Your task to perform on an android device: Go to eBay Image 0: 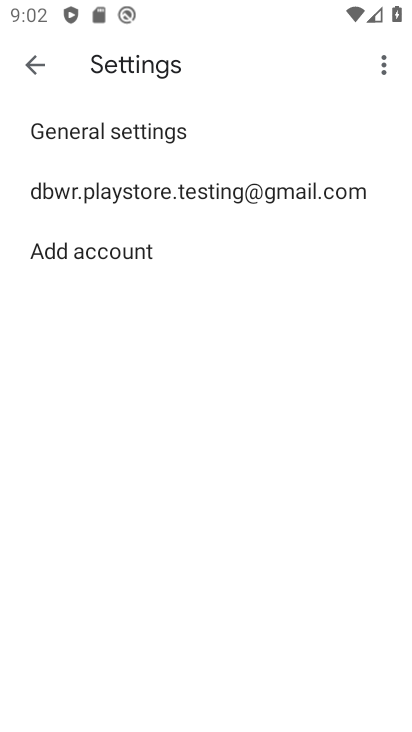
Step 0: click (17, 65)
Your task to perform on an android device: Go to eBay Image 1: 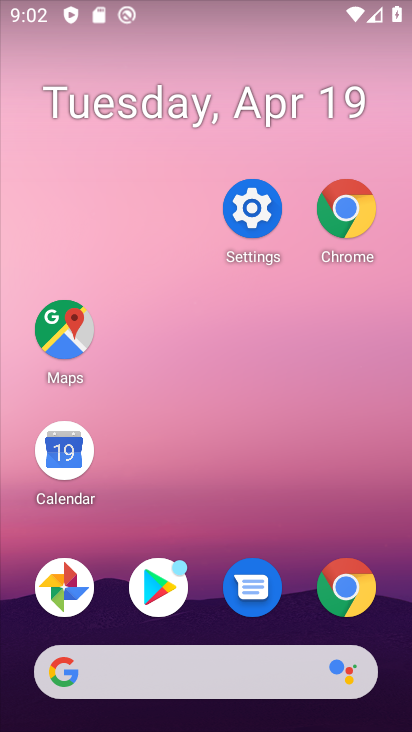
Step 1: drag from (315, 643) to (164, 120)
Your task to perform on an android device: Go to eBay Image 2: 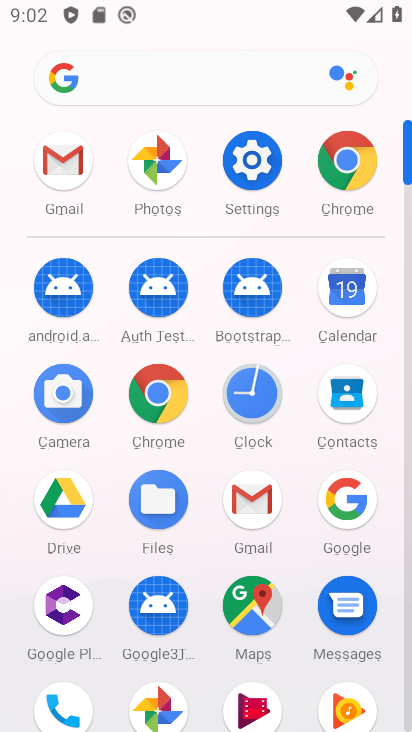
Step 2: click (348, 152)
Your task to perform on an android device: Go to eBay Image 3: 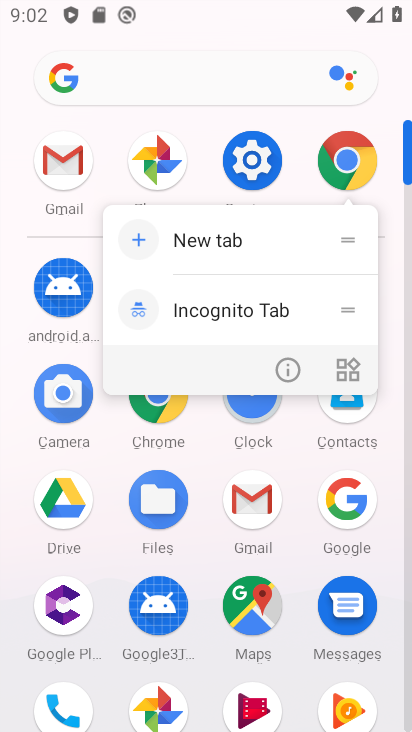
Step 3: click (348, 152)
Your task to perform on an android device: Go to eBay Image 4: 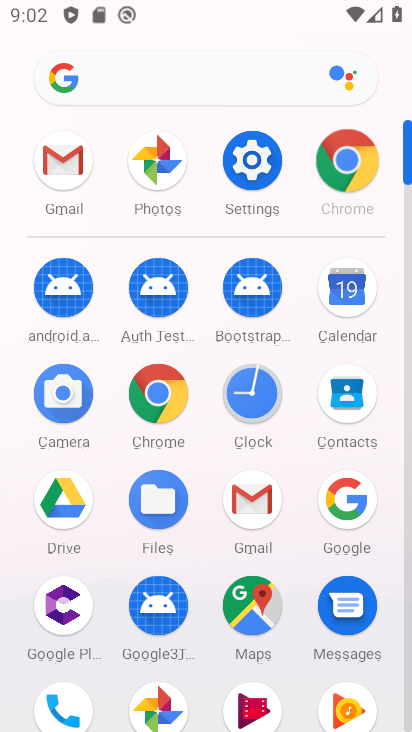
Step 4: click (348, 153)
Your task to perform on an android device: Go to eBay Image 5: 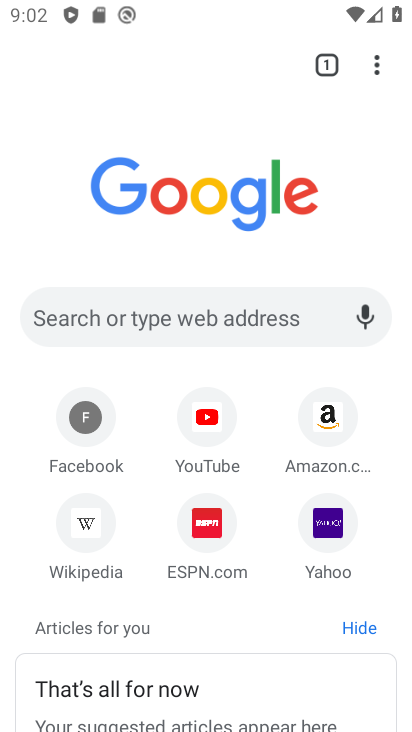
Step 5: click (73, 321)
Your task to perform on an android device: Go to eBay Image 6: 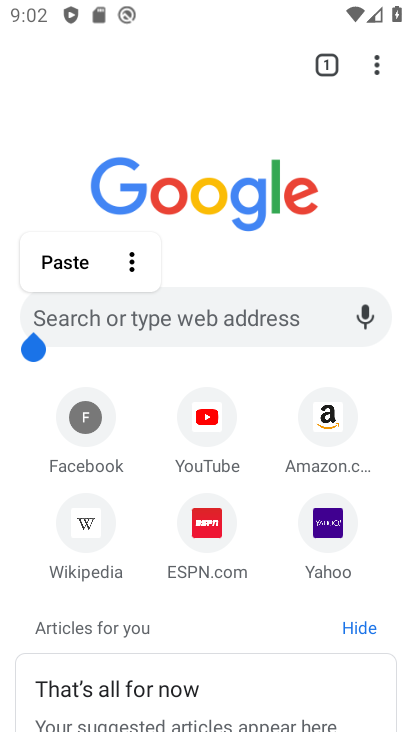
Step 6: click (78, 314)
Your task to perform on an android device: Go to eBay Image 7: 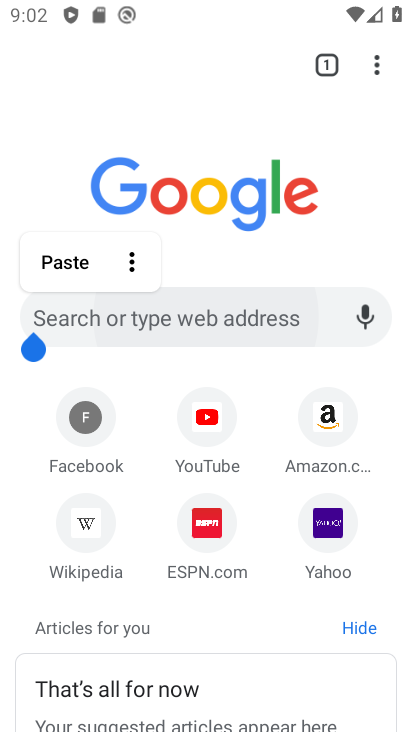
Step 7: click (78, 314)
Your task to perform on an android device: Go to eBay Image 8: 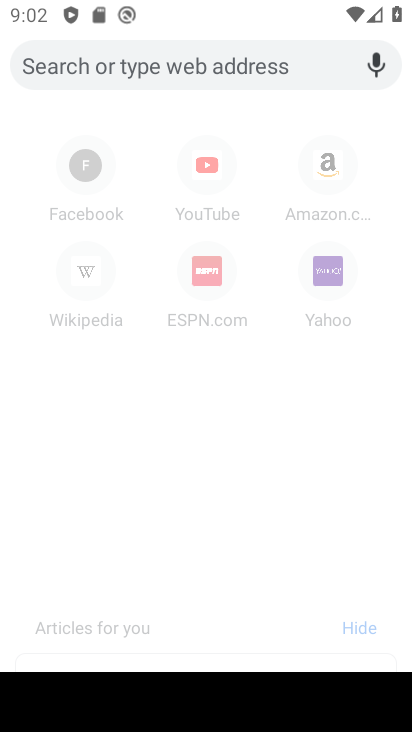
Step 8: click (79, 311)
Your task to perform on an android device: Go to eBay Image 9: 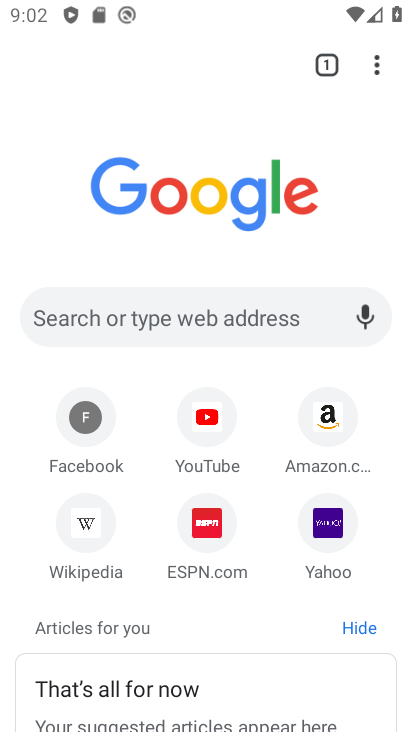
Step 9: click (150, 318)
Your task to perform on an android device: Go to eBay Image 10: 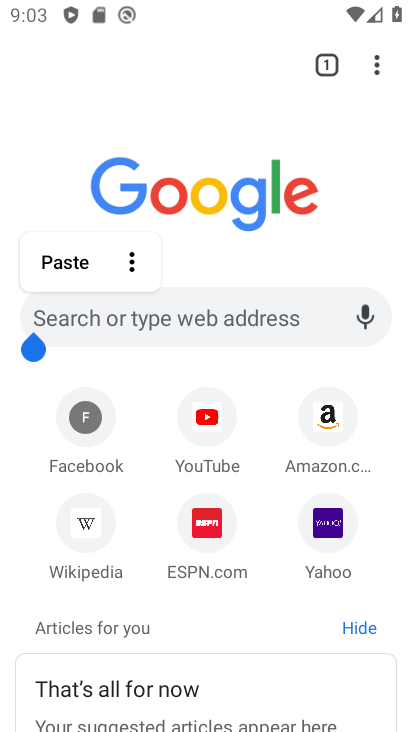
Step 10: click (51, 311)
Your task to perform on an android device: Go to eBay Image 11: 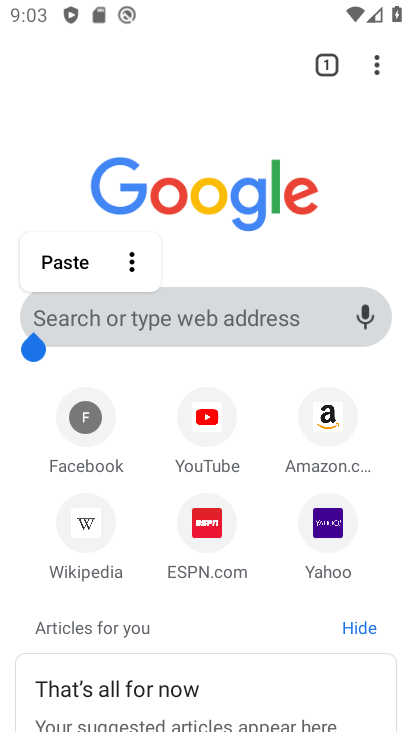
Step 11: click (64, 304)
Your task to perform on an android device: Go to eBay Image 12: 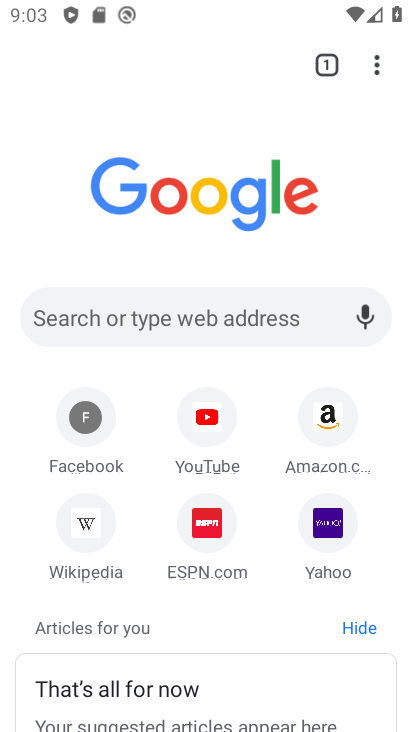
Step 12: click (154, 311)
Your task to perform on an android device: Go to eBay Image 13: 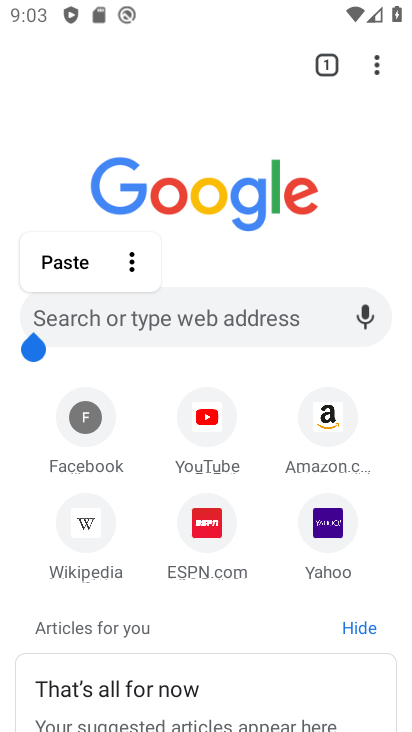
Step 13: click (149, 306)
Your task to perform on an android device: Go to eBay Image 14: 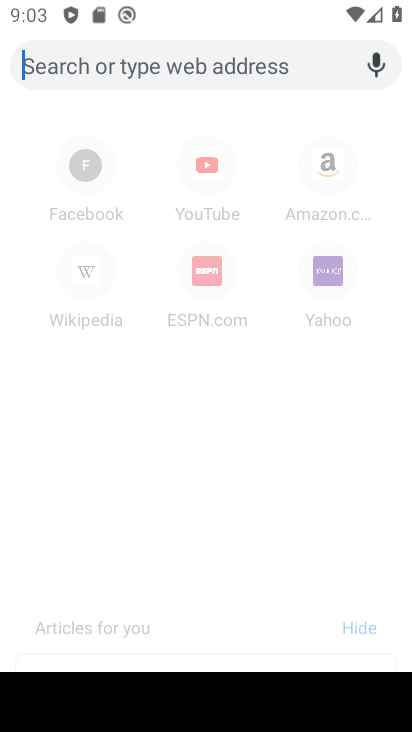
Step 14: type "www. go to eBay.com"
Your task to perform on an android device: Go to eBay Image 15: 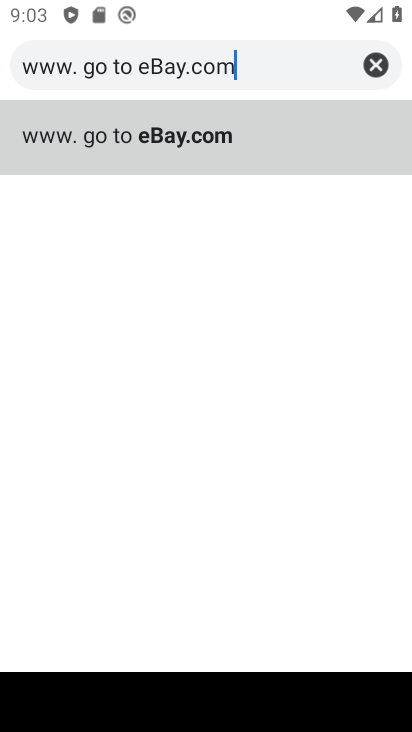
Step 15: click (169, 154)
Your task to perform on an android device: Go to eBay Image 16: 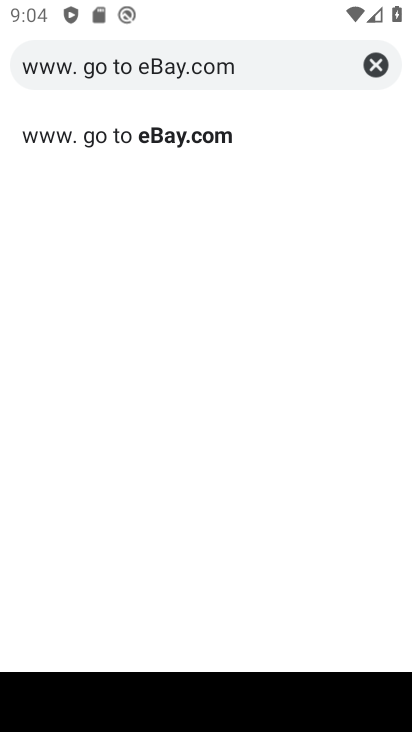
Step 16: click (199, 139)
Your task to perform on an android device: Go to eBay Image 17: 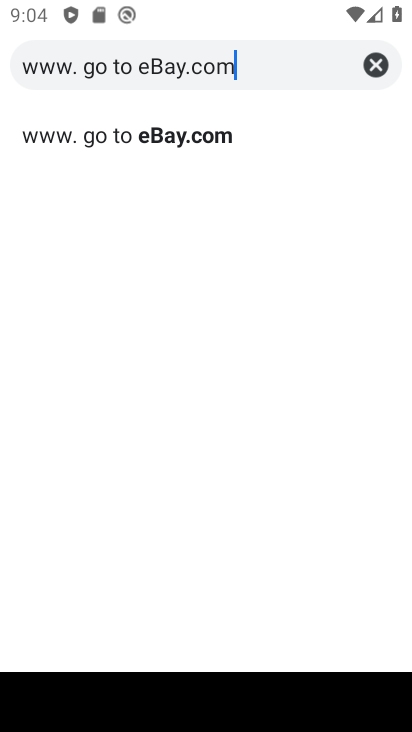
Step 17: click (199, 139)
Your task to perform on an android device: Go to eBay Image 18: 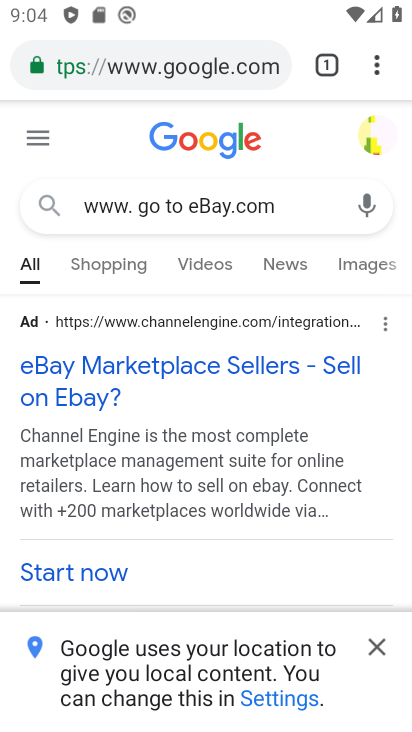
Step 18: drag from (229, 524) to (167, 166)
Your task to perform on an android device: Go to eBay Image 19: 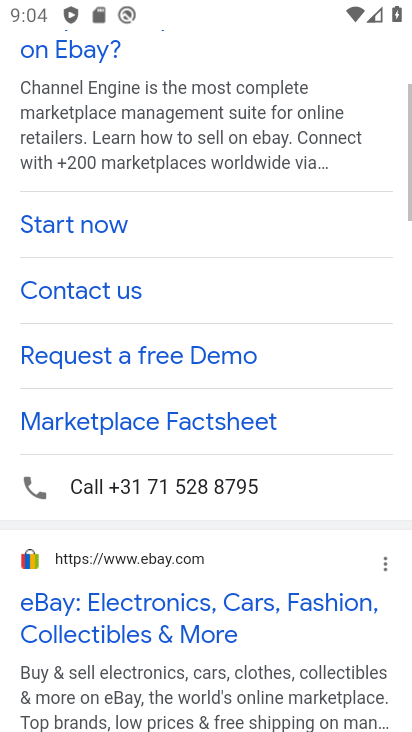
Step 19: drag from (193, 351) to (143, 89)
Your task to perform on an android device: Go to eBay Image 20: 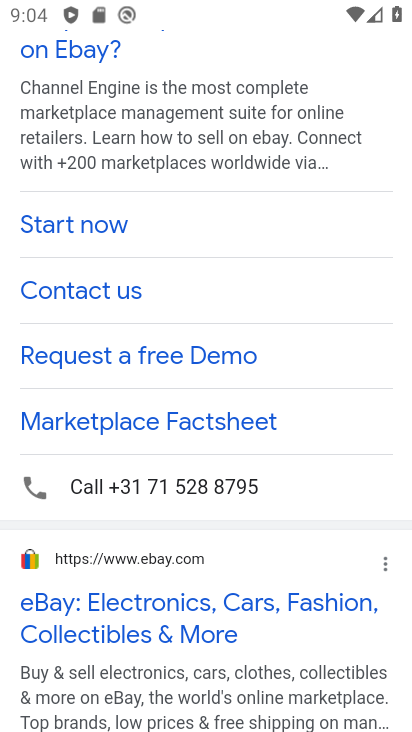
Step 20: click (179, 154)
Your task to perform on an android device: Go to eBay Image 21: 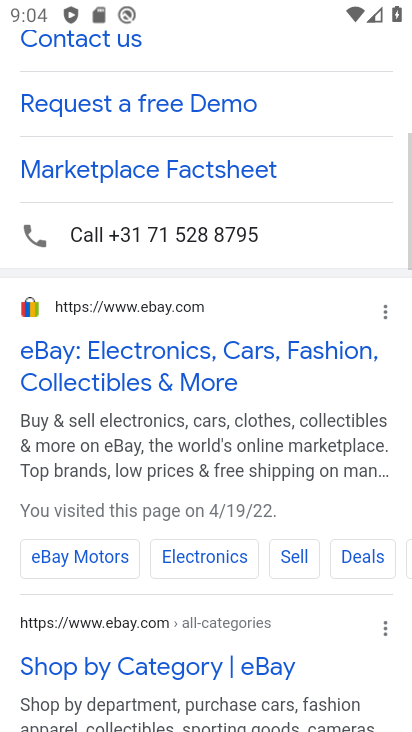
Step 21: drag from (205, 219) to (220, 508)
Your task to perform on an android device: Go to eBay Image 22: 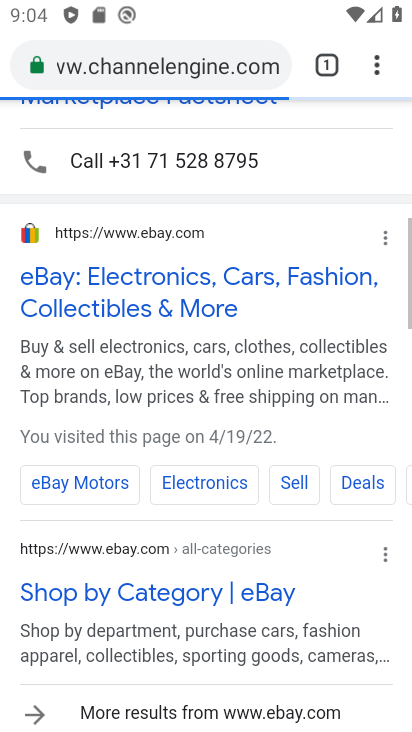
Step 22: drag from (185, 502) to (148, 342)
Your task to perform on an android device: Go to eBay Image 23: 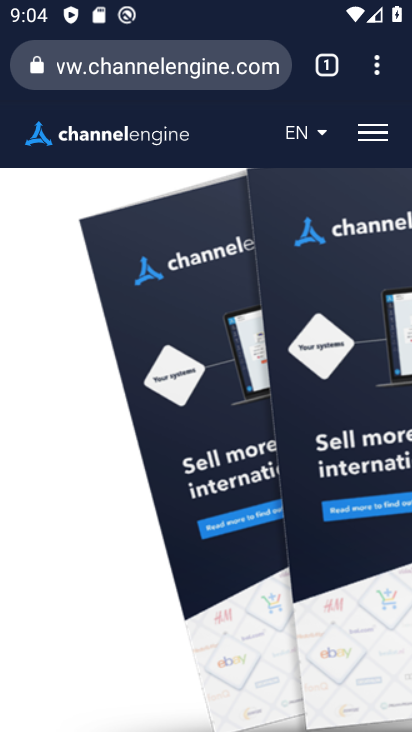
Step 23: drag from (96, 433) to (77, 124)
Your task to perform on an android device: Go to eBay Image 24: 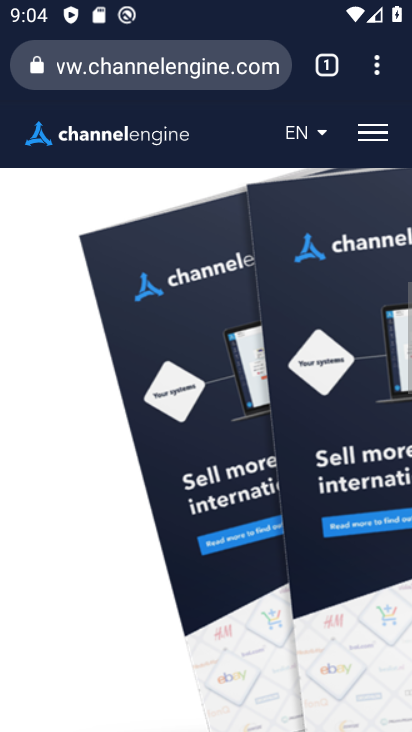
Step 24: drag from (286, 271) to (286, 131)
Your task to perform on an android device: Go to eBay Image 25: 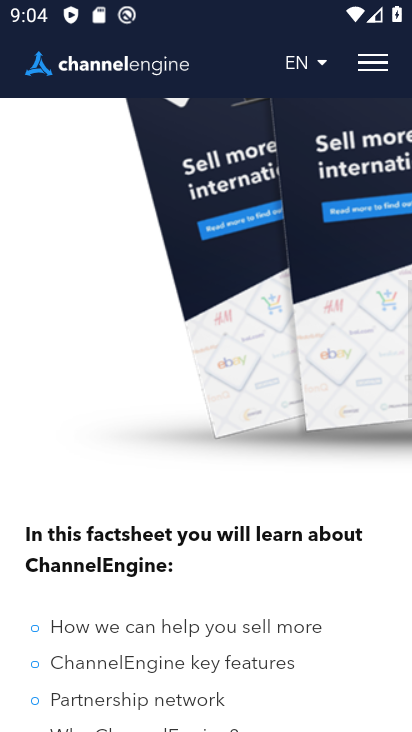
Step 25: click (209, 24)
Your task to perform on an android device: Go to eBay Image 26: 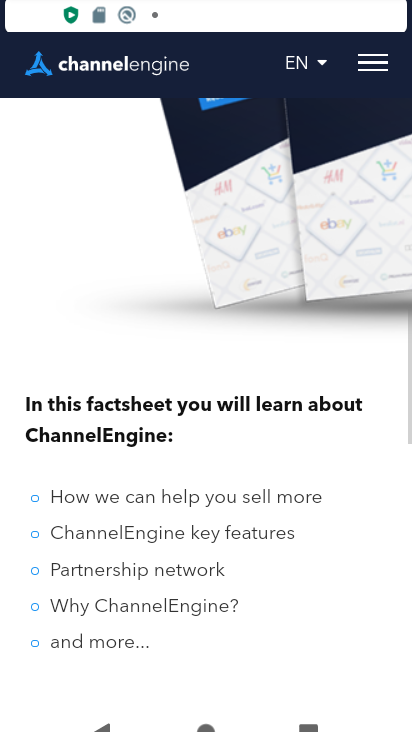
Step 26: click (279, 364)
Your task to perform on an android device: Go to eBay Image 27: 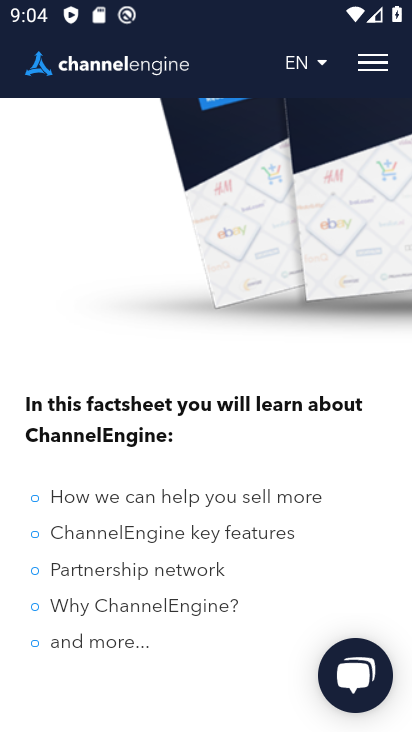
Step 27: task complete